Your task to perform on an android device: make emails show in primary in the gmail app Image 0: 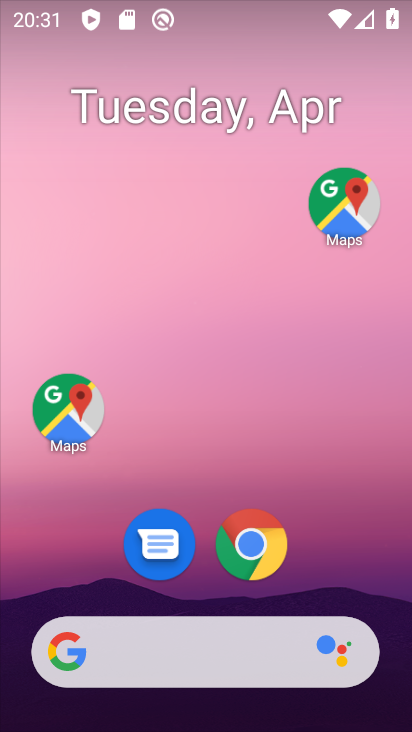
Step 0: drag from (281, 231) to (334, 43)
Your task to perform on an android device: make emails show in primary in the gmail app Image 1: 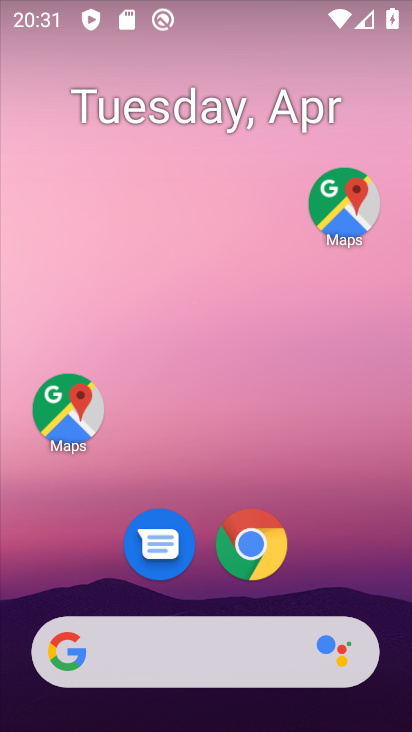
Step 1: drag from (186, 639) to (283, 218)
Your task to perform on an android device: make emails show in primary in the gmail app Image 2: 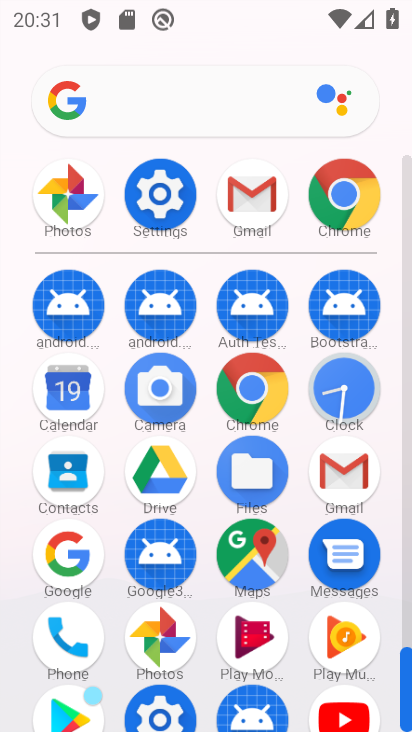
Step 2: click (252, 206)
Your task to perform on an android device: make emails show in primary in the gmail app Image 3: 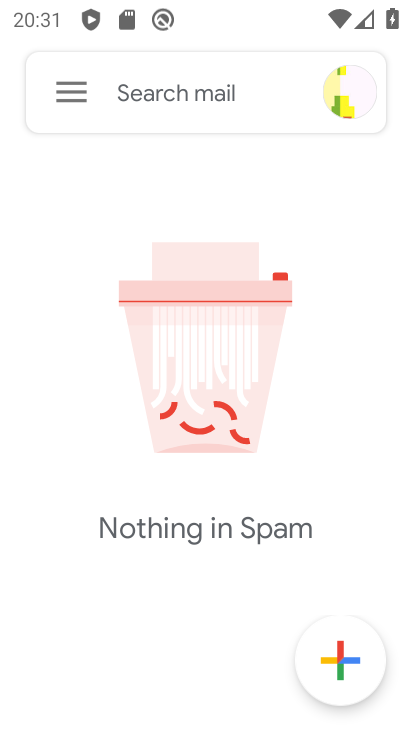
Step 3: click (60, 92)
Your task to perform on an android device: make emails show in primary in the gmail app Image 4: 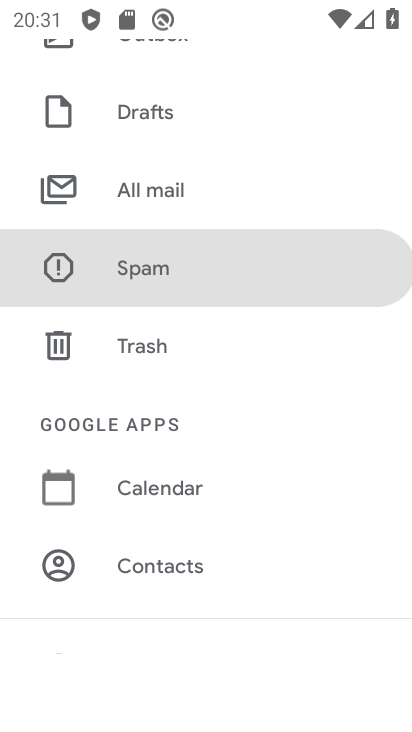
Step 4: drag from (190, 589) to (303, 128)
Your task to perform on an android device: make emails show in primary in the gmail app Image 5: 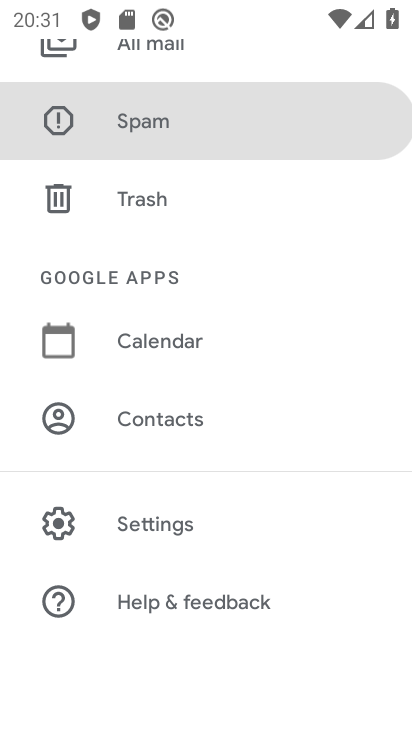
Step 5: click (170, 521)
Your task to perform on an android device: make emails show in primary in the gmail app Image 6: 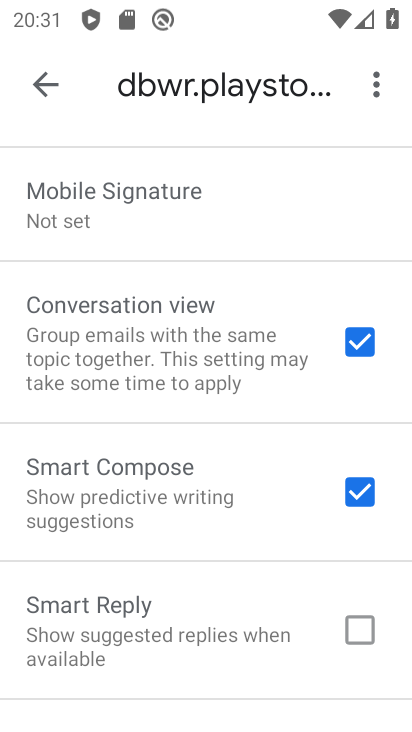
Step 6: drag from (257, 529) to (250, 587)
Your task to perform on an android device: make emails show in primary in the gmail app Image 7: 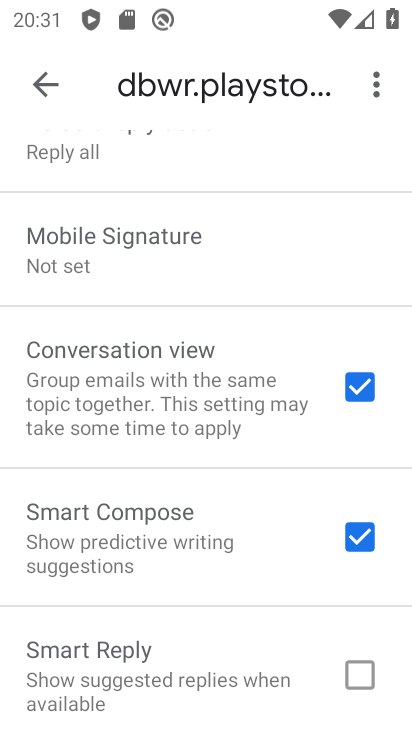
Step 7: drag from (228, 162) to (205, 585)
Your task to perform on an android device: make emails show in primary in the gmail app Image 8: 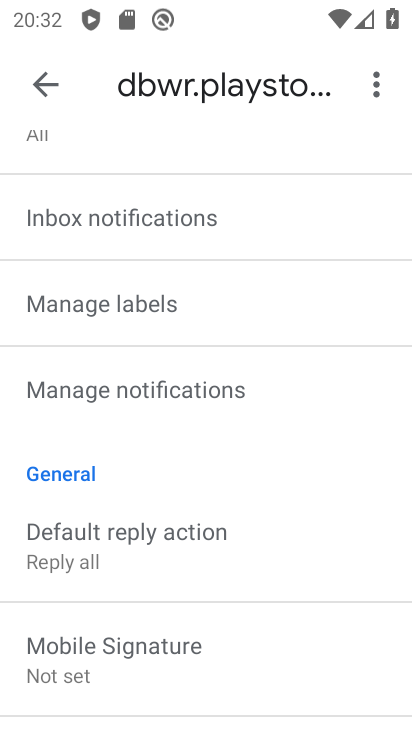
Step 8: drag from (306, 200) to (272, 542)
Your task to perform on an android device: make emails show in primary in the gmail app Image 9: 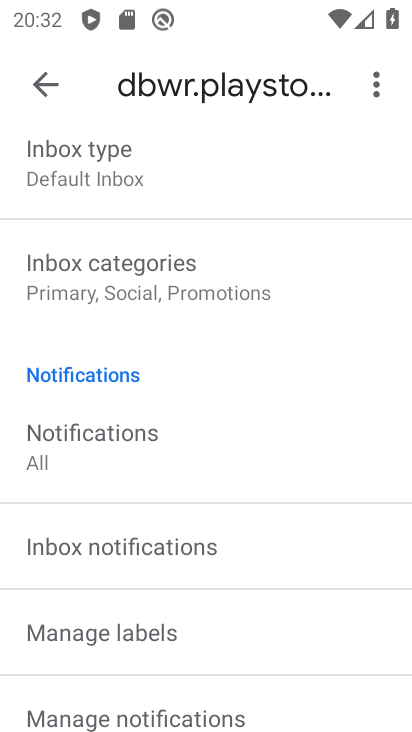
Step 9: click (148, 260)
Your task to perform on an android device: make emails show in primary in the gmail app Image 10: 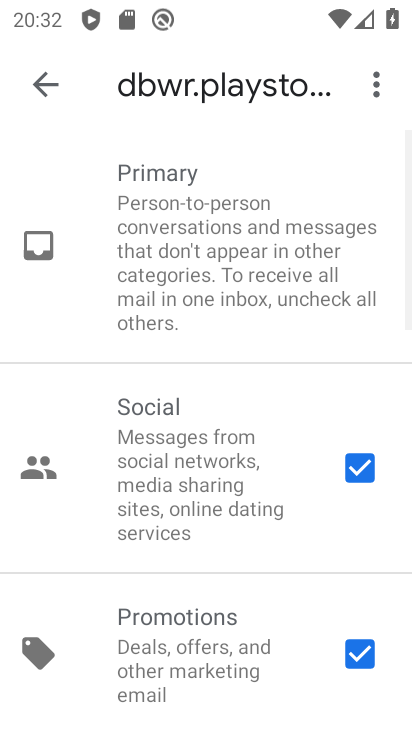
Step 10: click (359, 472)
Your task to perform on an android device: make emails show in primary in the gmail app Image 11: 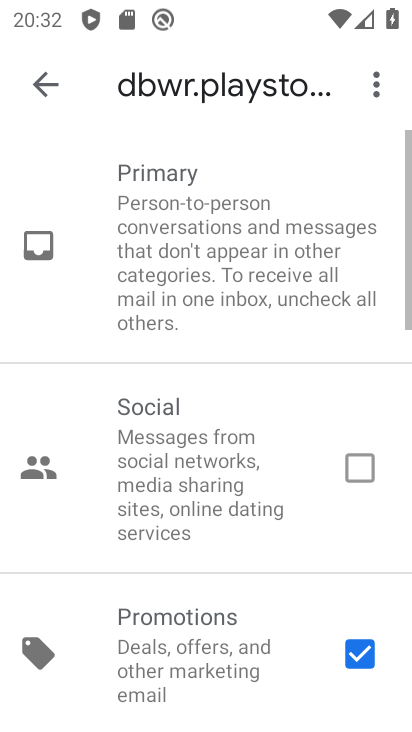
Step 11: click (354, 655)
Your task to perform on an android device: make emails show in primary in the gmail app Image 12: 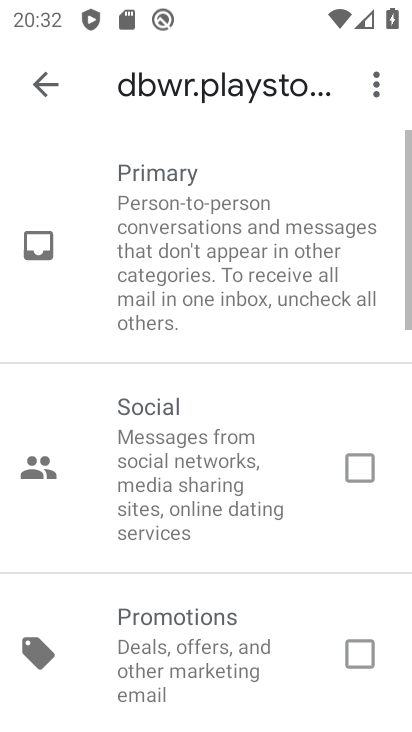
Step 12: drag from (248, 515) to (263, 586)
Your task to perform on an android device: make emails show in primary in the gmail app Image 13: 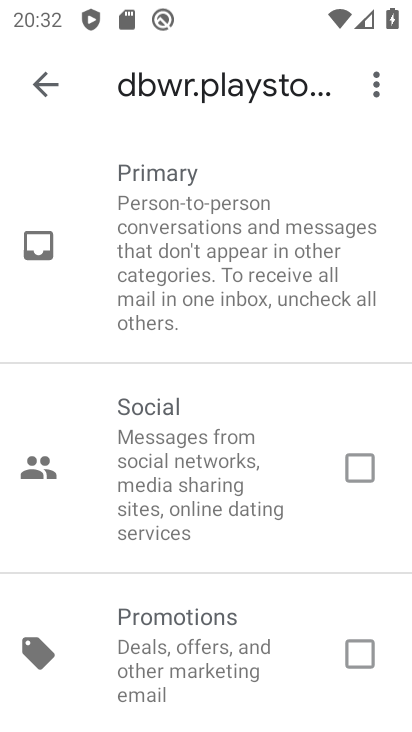
Step 13: click (53, 82)
Your task to perform on an android device: make emails show in primary in the gmail app Image 14: 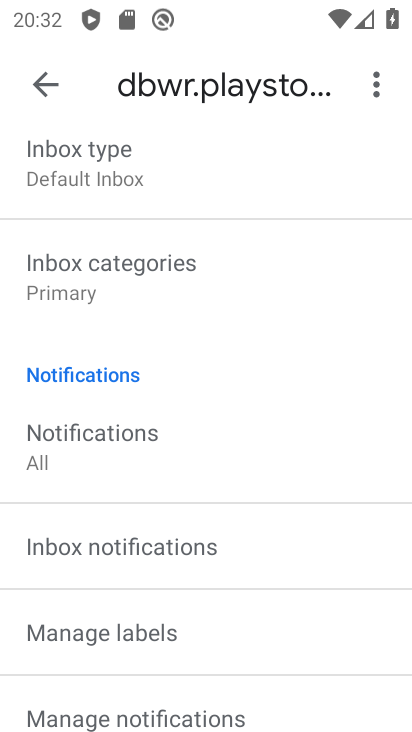
Step 14: task complete